Your task to perform on an android device: What's on my calendar tomorrow? Image 0: 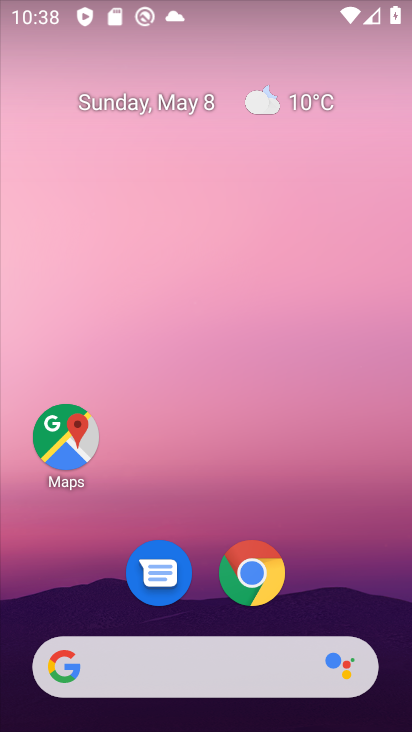
Step 0: drag from (385, 570) to (378, 4)
Your task to perform on an android device: What's on my calendar tomorrow? Image 1: 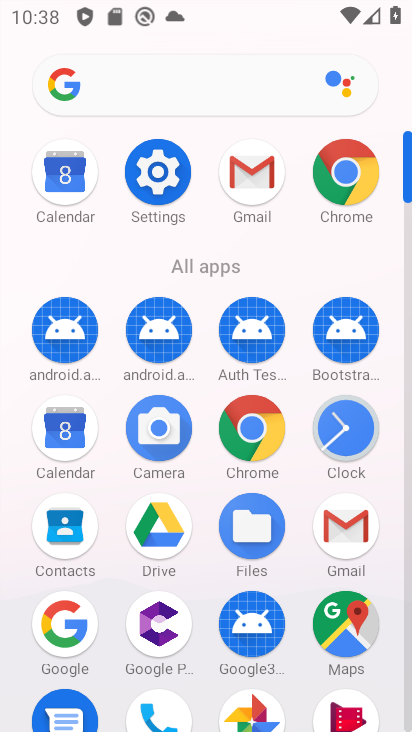
Step 1: click (75, 417)
Your task to perform on an android device: What's on my calendar tomorrow? Image 2: 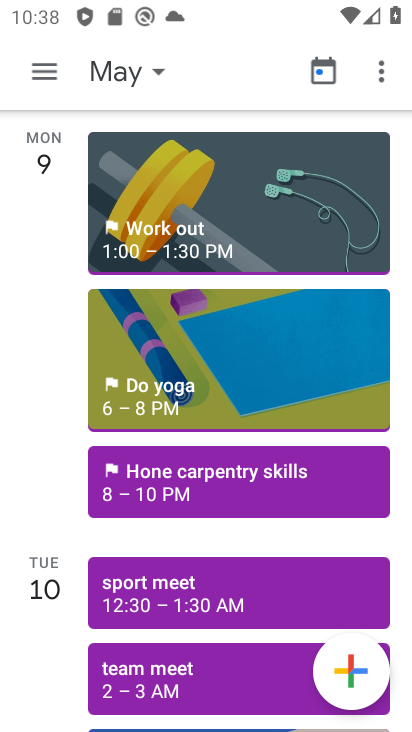
Step 2: click (155, 85)
Your task to perform on an android device: What's on my calendar tomorrow? Image 3: 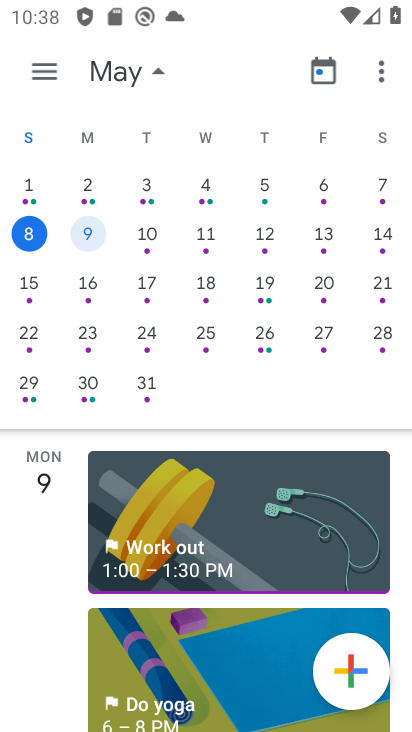
Step 3: click (136, 234)
Your task to perform on an android device: What's on my calendar tomorrow? Image 4: 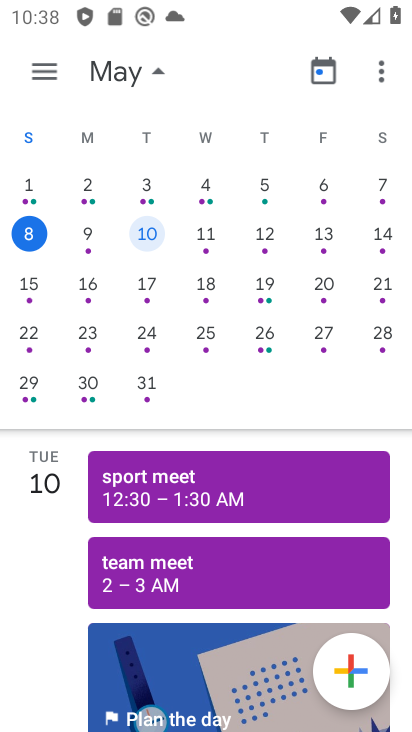
Step 4: click (145, 73)
Your task to perform on an android device: What's on my calendar tomorrow? Image 5: 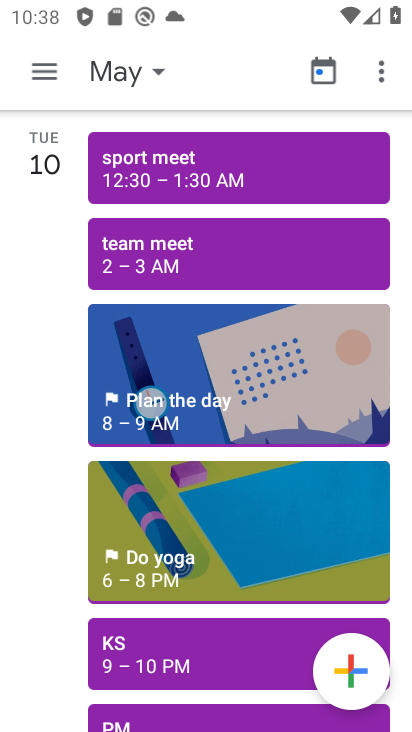
Step 5: task complete